Your task to perform on an android device: turn off airplane mode Image 0: 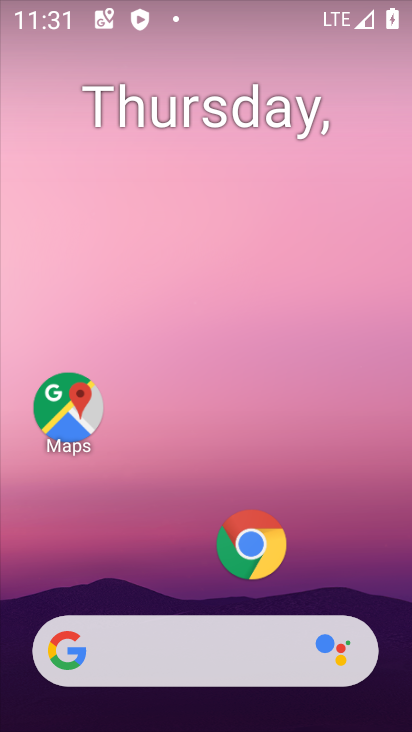
Step 0: drag from (224, 599) to (186, 7)
Your task to perform on an android device: turn off airplane mode Image 1: 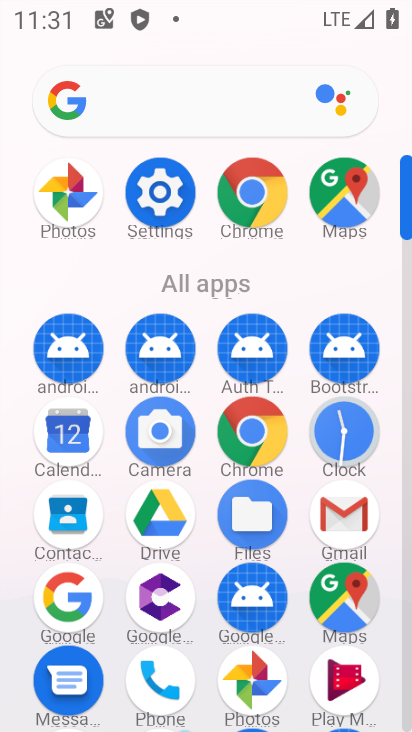
Step 1: click (157, 209)
Your task to perform on an android device: turn off airplane mode Image 2: 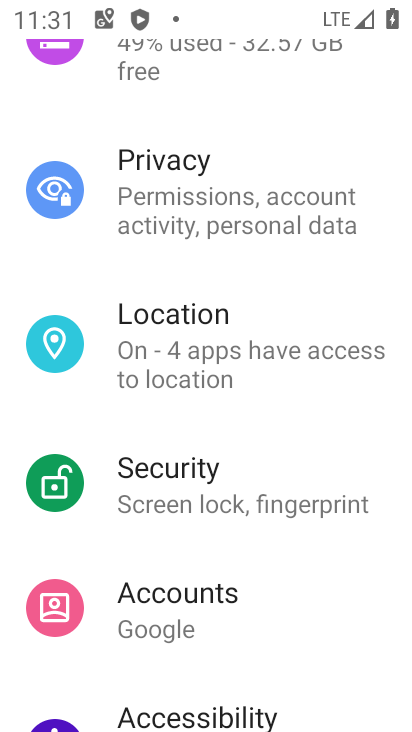
Step 2: drag from (157, 209) to (117, 656)
Your task to perform on an android device: turn off airplane mode Image 3: 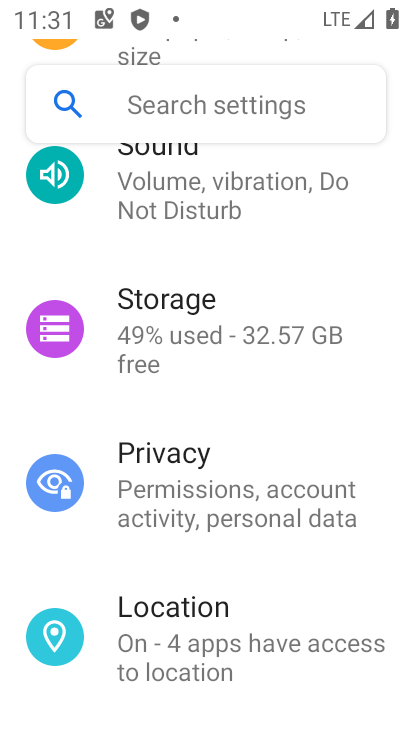
Step 3: drag from (256, 262) to (184, 729)
Your task to perform on an android device: turn off airplane mode Image 4: 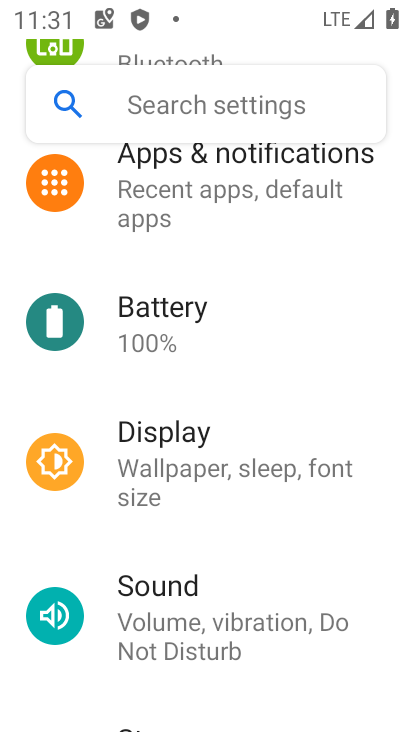
Step 4: drag from (217, 194) to (205, 730)
Your task to perform on an android device: turn off airplane mode Image 5: 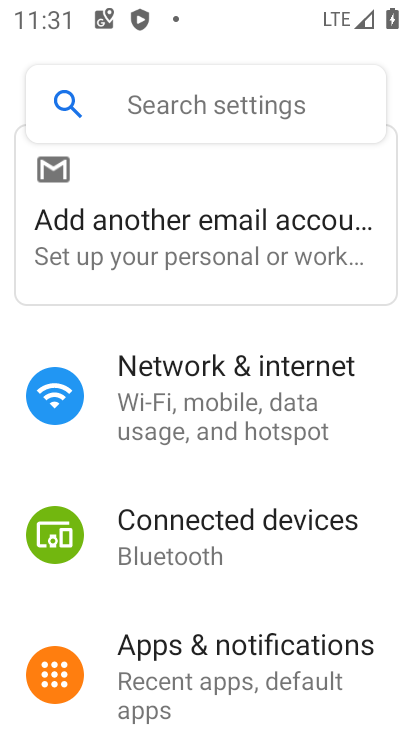
Step 5: click (246, 346)
Your task to perform on an android device: turn off airplane mode Image 6: 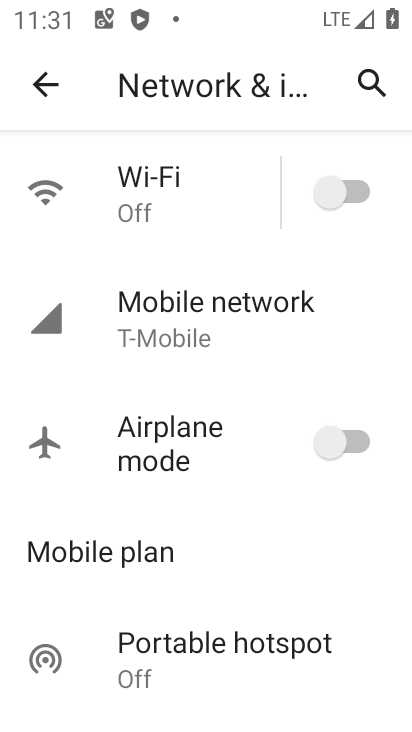
Step 6: task complete